Your task to perform on an android device: Open the web browser Image 0: 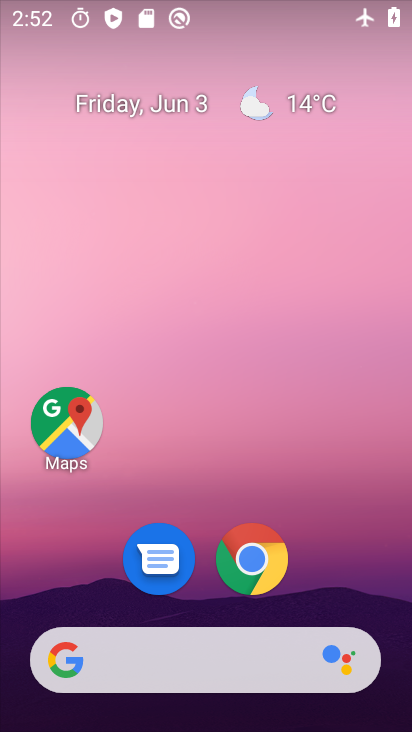
Step 0: click (218, 664)
Your task to perform on an android device: Open the web browser Image 1: 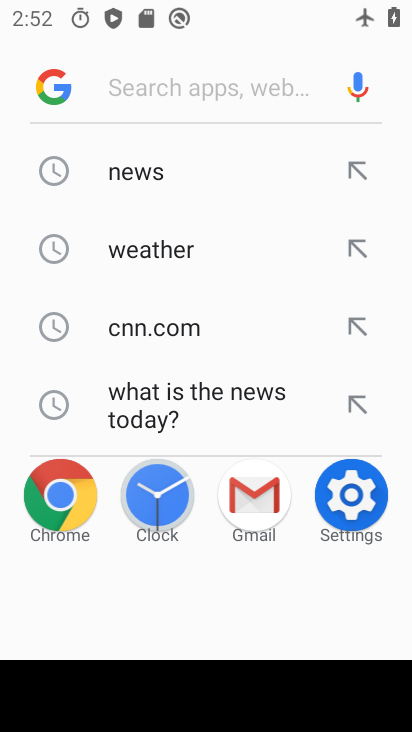
Step 1: task complete